Your task to perform on an android device: Go to CNN.com Image 0: 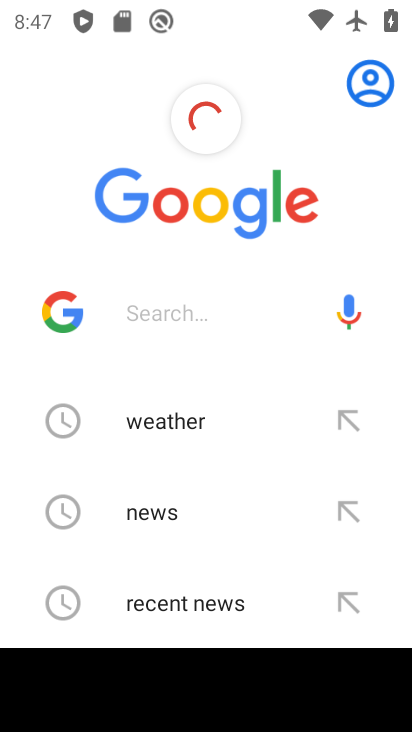
Step 0: press home button
Your task to perform on an android device: Go to CNN.com Image 1: 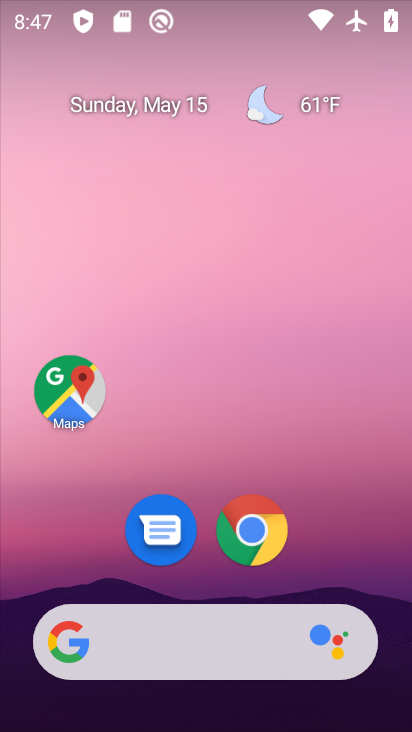
Step 1: click (255, 528)
Your task to perform on an android device: Go to CNN.com Image 2: 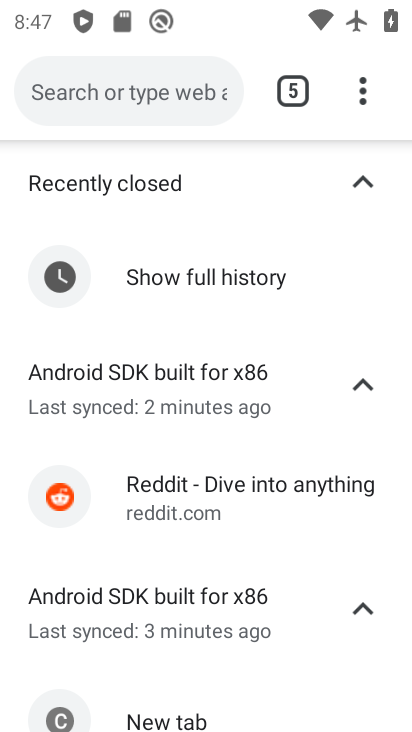
Step 2: click (366, 103)
Your task to perform on an android device: Go to CNN.com Image 3: 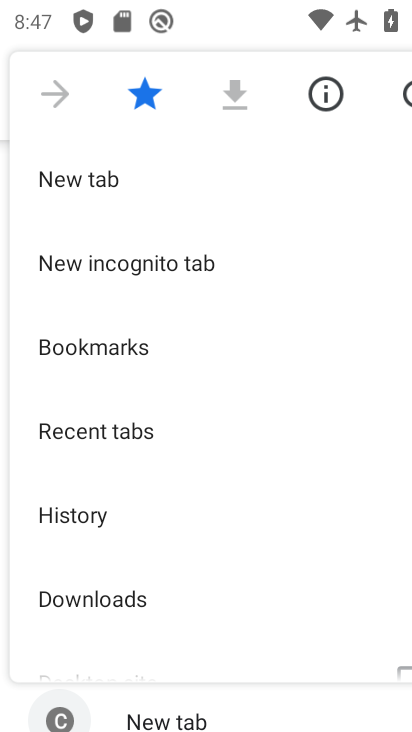
Step 3: click (82, 174)
Your task to perform on an android device: Go to CNN.com Image 4: 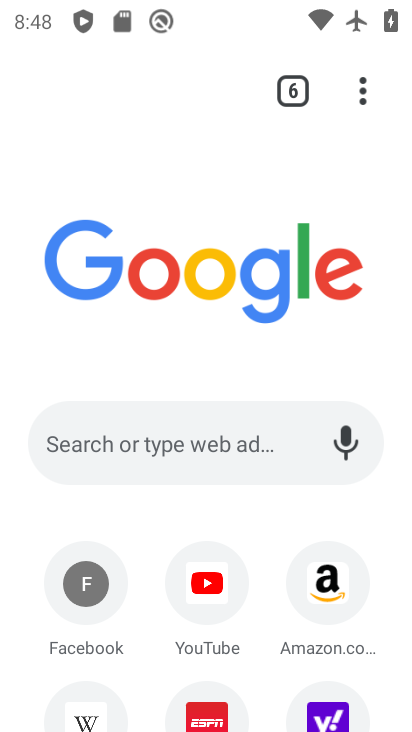
Step 4: type "CNN.com"
Your task to perform on an android device: Go to CNN.com Image 5: 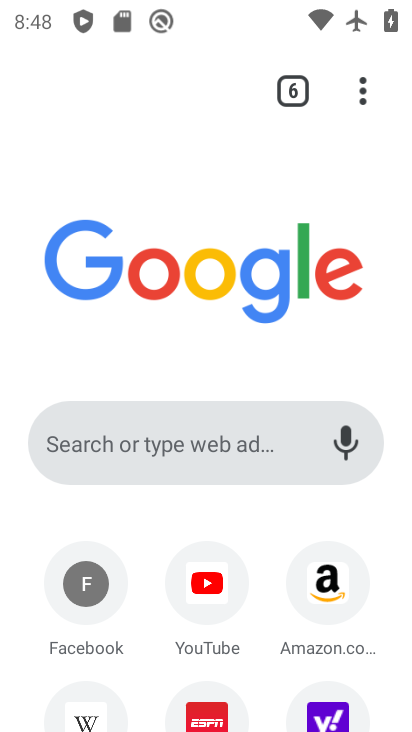
Step 5: click (224, 447)
Your task to perform on an android device: Go to CNN.com Image 6: 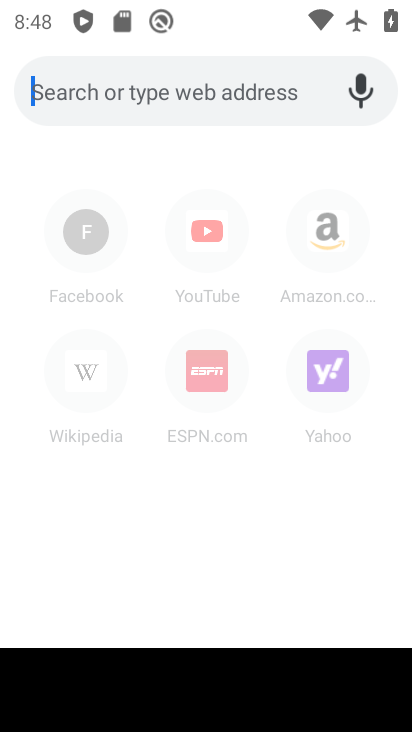
Step 6: type "CNN.com"
Your task to perform on an android device: Go to CNN.com Image 7: 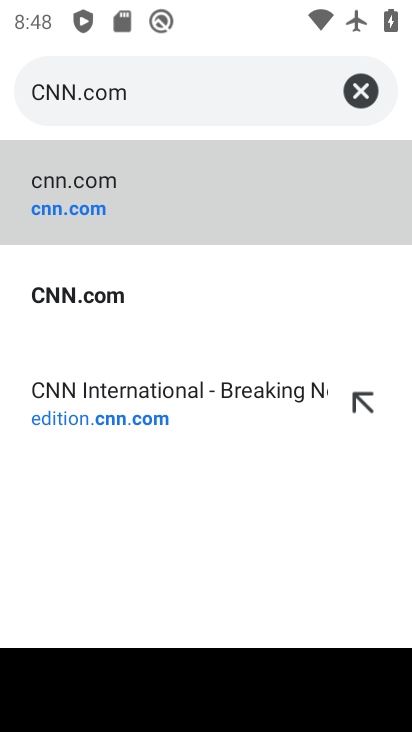
Step 7: click (65, 183)
Your task to perform on an android device: Go to CNN.com Image 8: 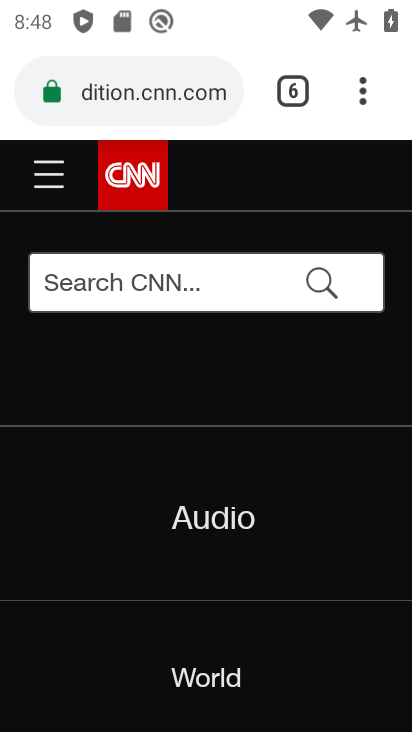
Step 8: task complete